Your task to perform on an android device: see tabs open on other devices in the chrome app Image 0: 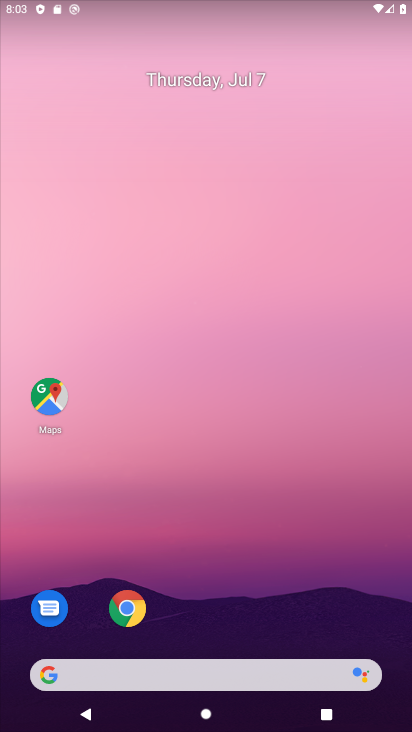
Step 0: drag from (303, 603) to (327, 159)
Your task to perform on an android device: see tabs open on other devices in the chrome app Image 1: 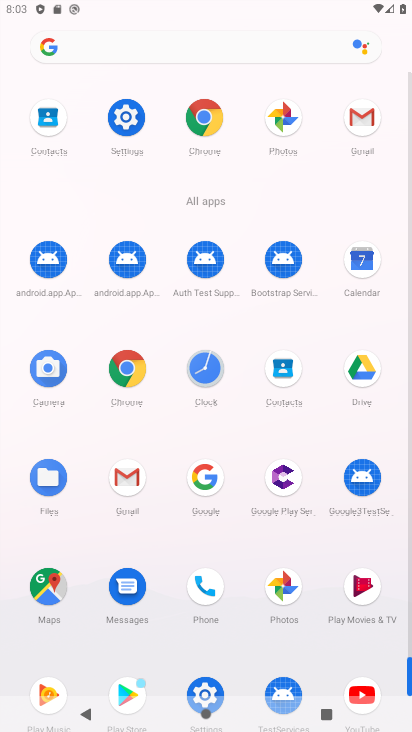
Step 1: click (130, 372)
Your task to perform on an android device: see tabs open on other devices in the chrome app Image 2: 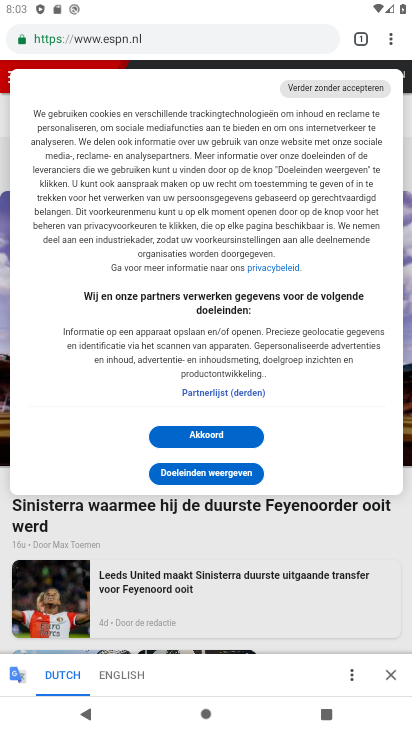
Step 2: click (387, 37)
Your task to perform on an android device: see tabs open on other devices in the chrome app Image 3: 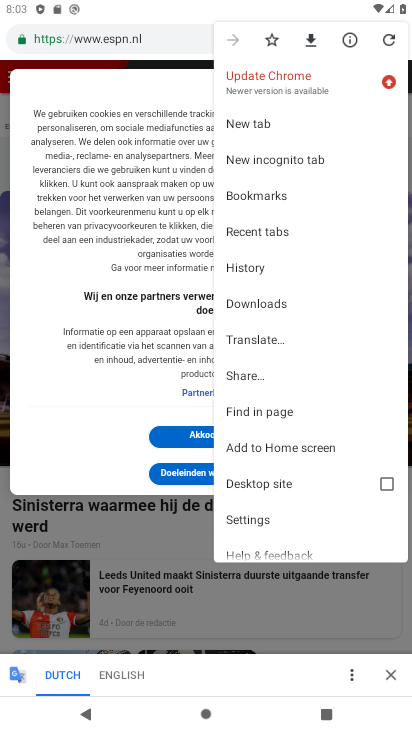
Step 3: click (288, 230)
Your task to perform on an android device: see tabs open on other devices in the chrome app Image 4: 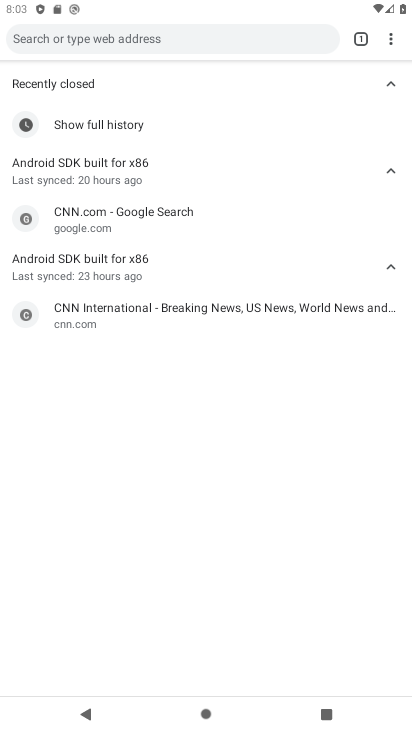
Step 4: click (365, 42)
Your task to perform on an android device: see tabs open on other devices in the chrome app Image 5: 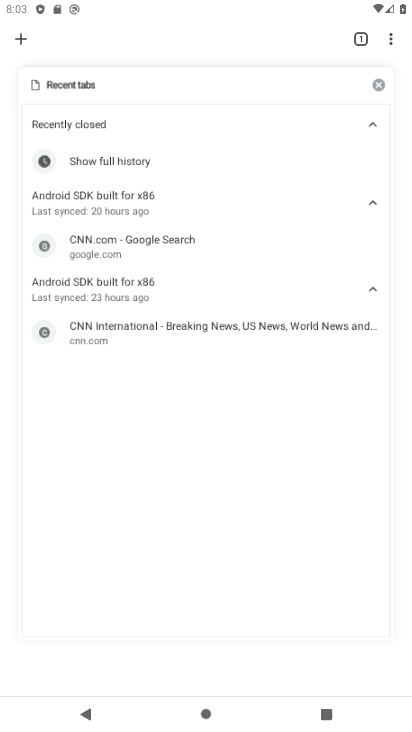
Step 5: task complete